Your task to perform on an android device: Go to Wikipedia Image 0: 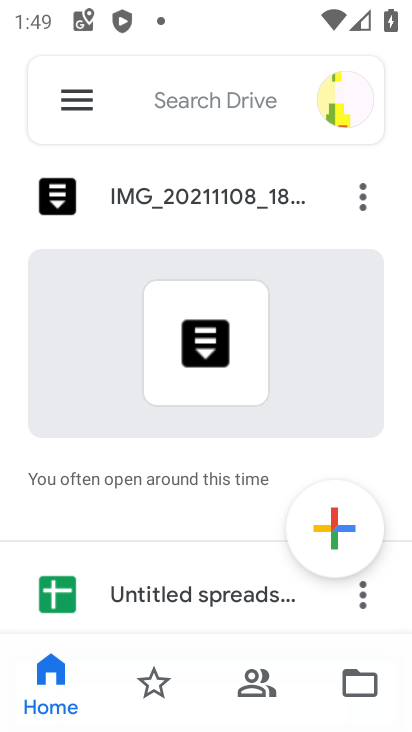
Step 0: press home button
Your task to perform on an android device: Go to Wikipedia Image 1: 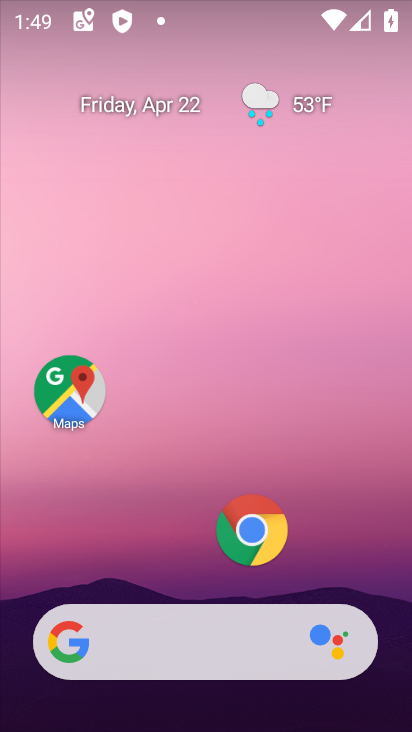
Step 1: drag from (246, 567) to (223, 106)
Your task to perform on an android device: Go to Wikipedia Image 2: 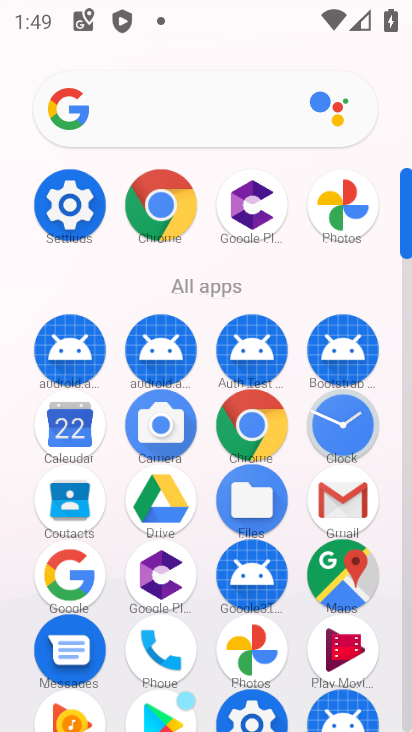
Step 2: click (157, 226)
Your task to perform on an android device: Go to Wikipedia Image 3: 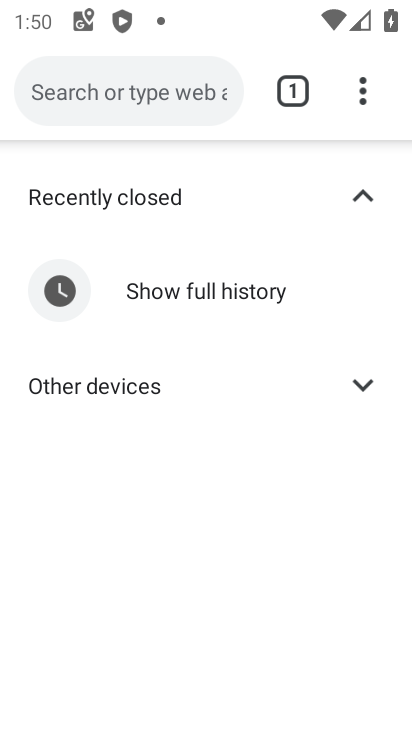
Step 3: click (139, 87)
Your task to perform on an android device: Go to Wikipedia Image 4: 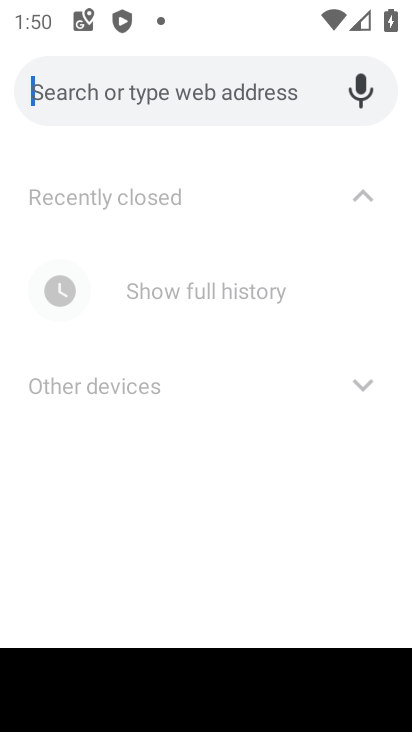
Step 4: type "wikipedia"
Your task to perform on an android device: Go to Wikipedia Image 5: 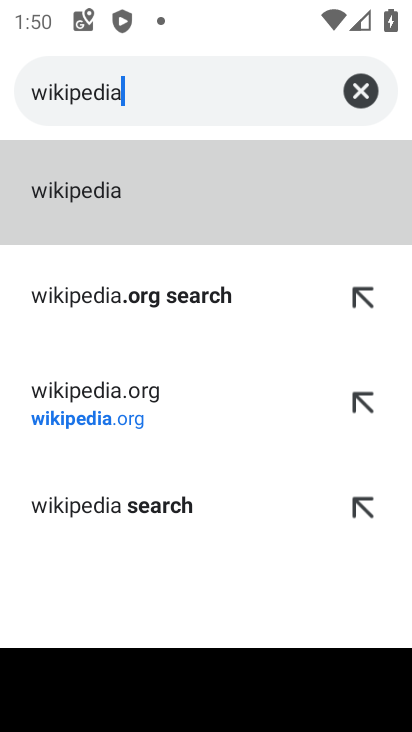
Step 5: click (126, 389)
Your task to perform on an android device: Go to Wikipedia Image 6: 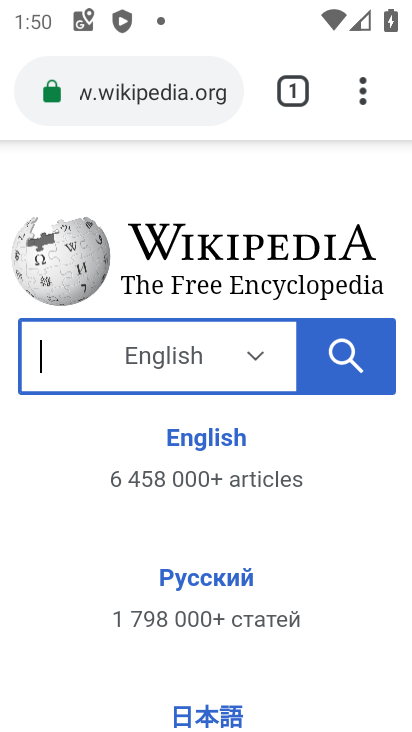
Step 6: click (126, 389)
Your task to perform on an android device: Go to Wikipedia Image 7: 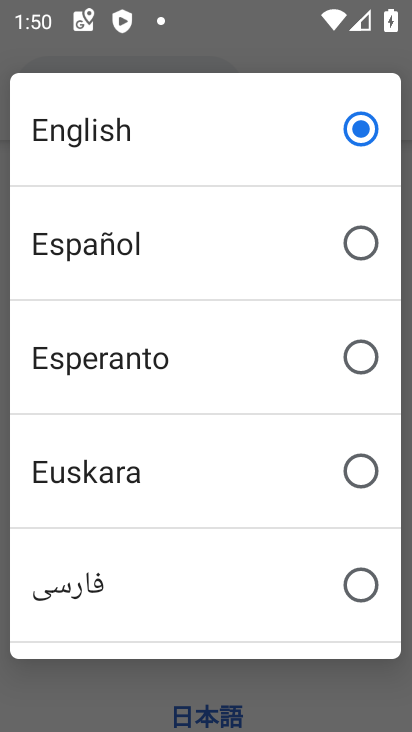
Step 7: task complete